Your task to perform on an android device: What's on the menu at Five Guys? Image 0: 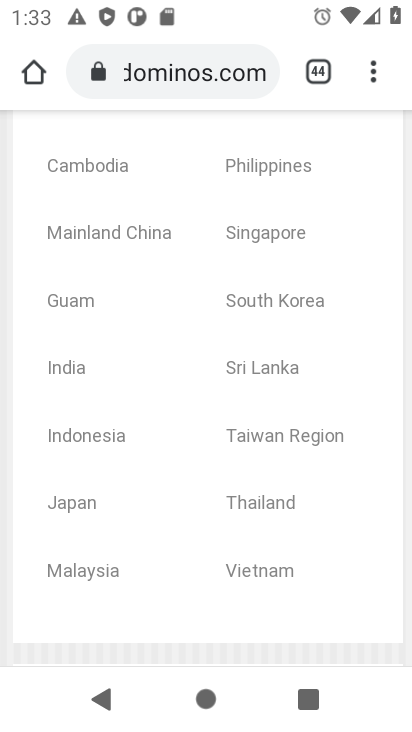
Step 0: press home button
Your task to perform on an android device: What's on the menu at Five Guys? Image 1: 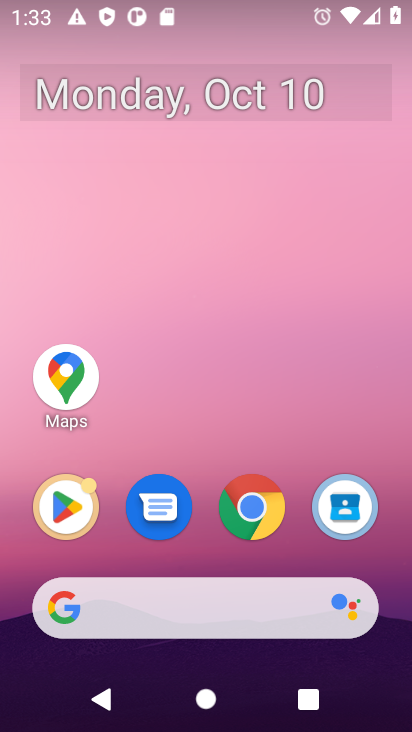
Step 1: click (214, 594)
Your task to perform on an android device: What's on the menu at Five Guys? Image 2: 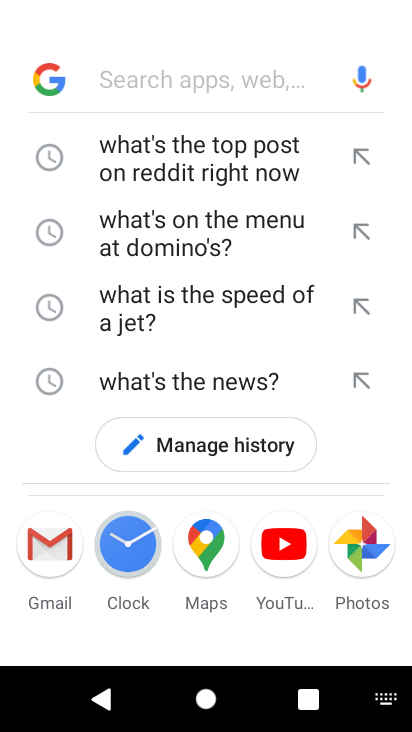
Step 2: type "What's on the menu at Five Guys"
Your task to perform on an android device: What's on the menu at Five Guys? Image 3: 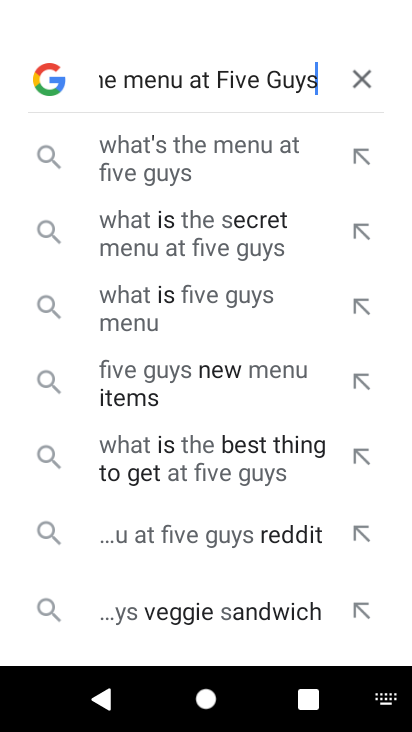
Step 3: press enter
Your task to perform on an android device: What's on the menu at Five Guys? Image 4: 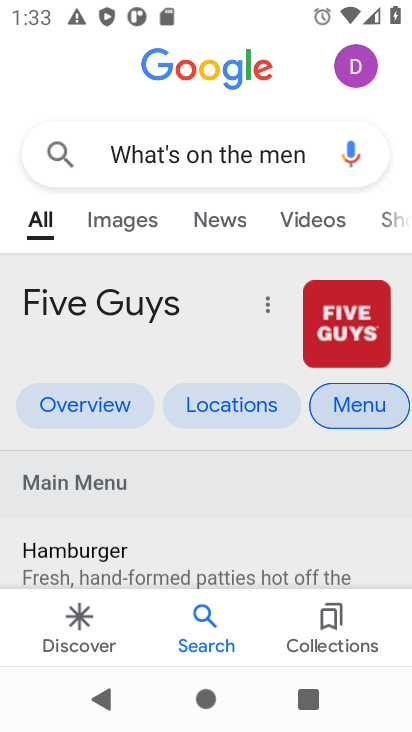
Step 4: drag from (327, 493) to (336, 377)
Your task to perform on an android device: What's on the menu at Five Guys? Image 5: 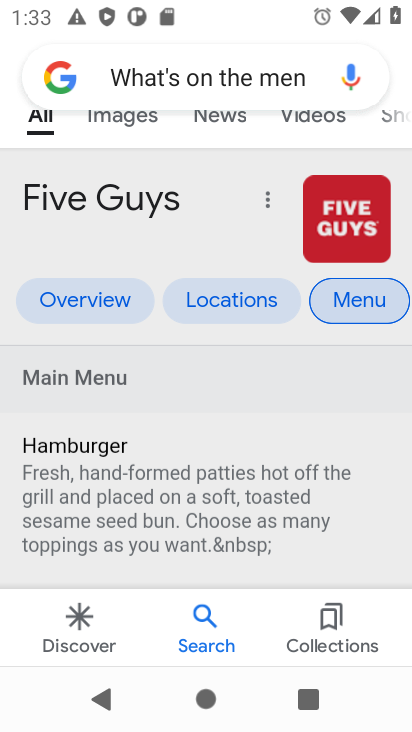
Step 5: drag from (293, 505) to (307, 358)
Your task to perform on an android device: What's on the menu at Five Guys? Image 6: 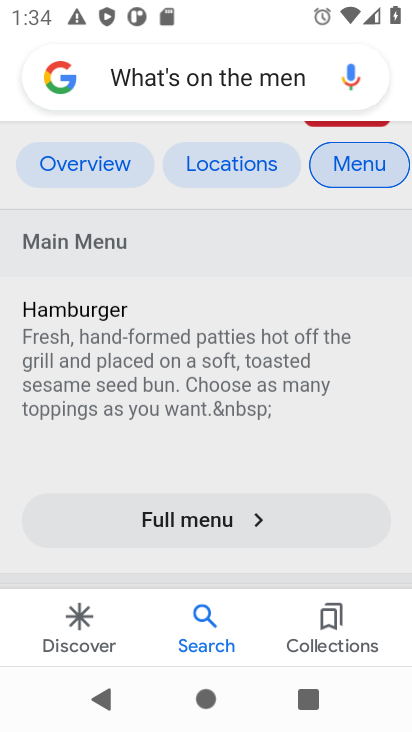
Step 6: click (223, 520)
Your task to perform on an android device: What's on the menu at Five Guys? Image 7: 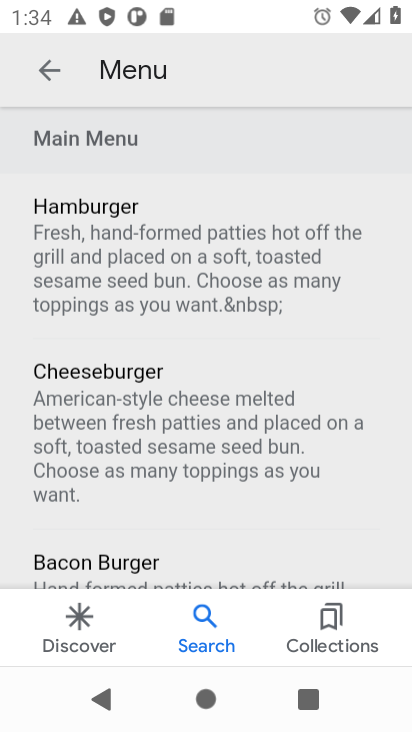
Step 7: task complete